Your task to perform on an android device: Open settings on Google Maps Image 0: 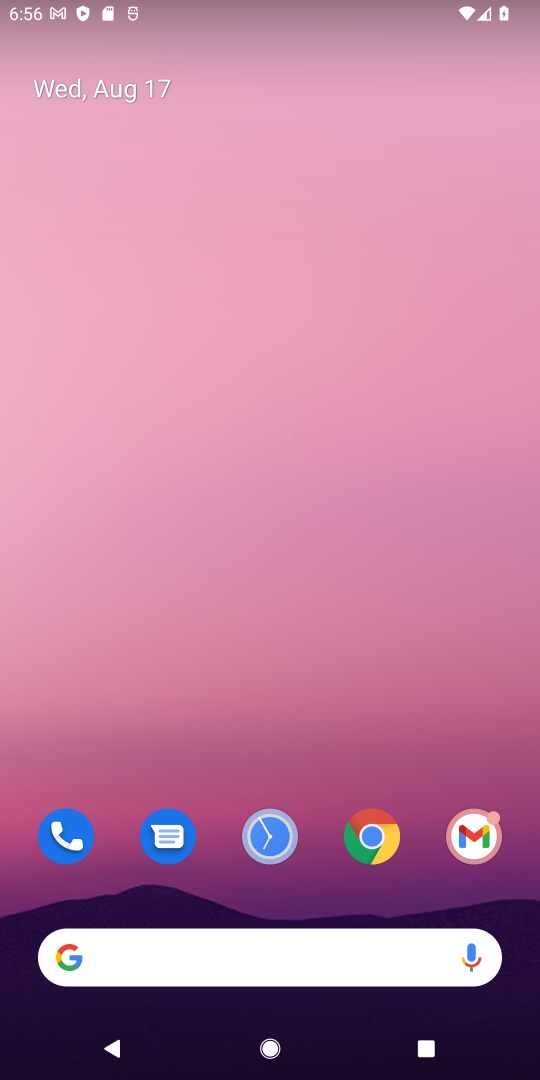
Step 0: drag from (351, 860) to (347, 124)
Your task to perform on an android device: Open settings on Google Maps Image 1: 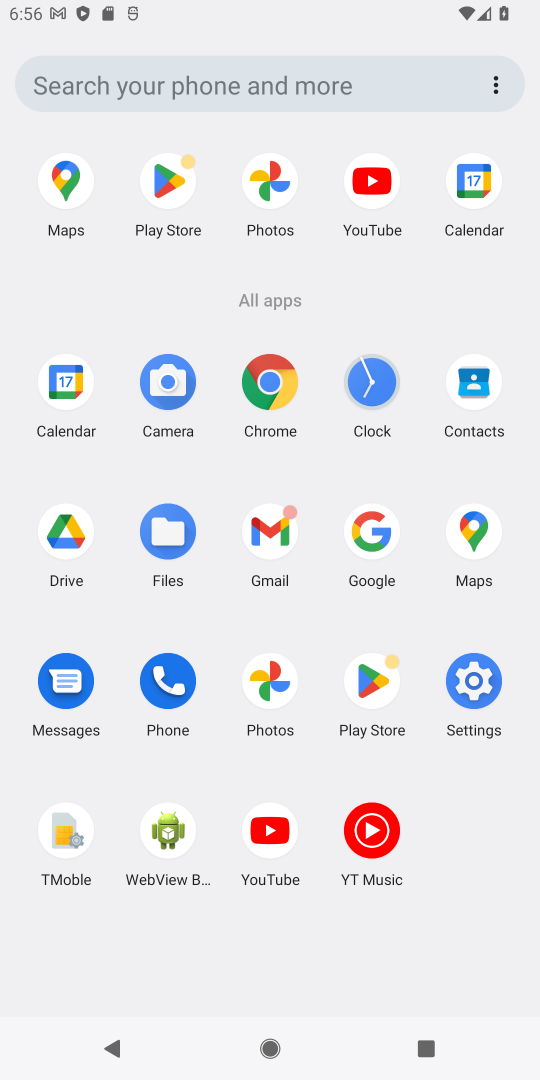
Step 1: click (472, 536)
Your task to perform on an android device: Open settings on Google Maps Image 2: 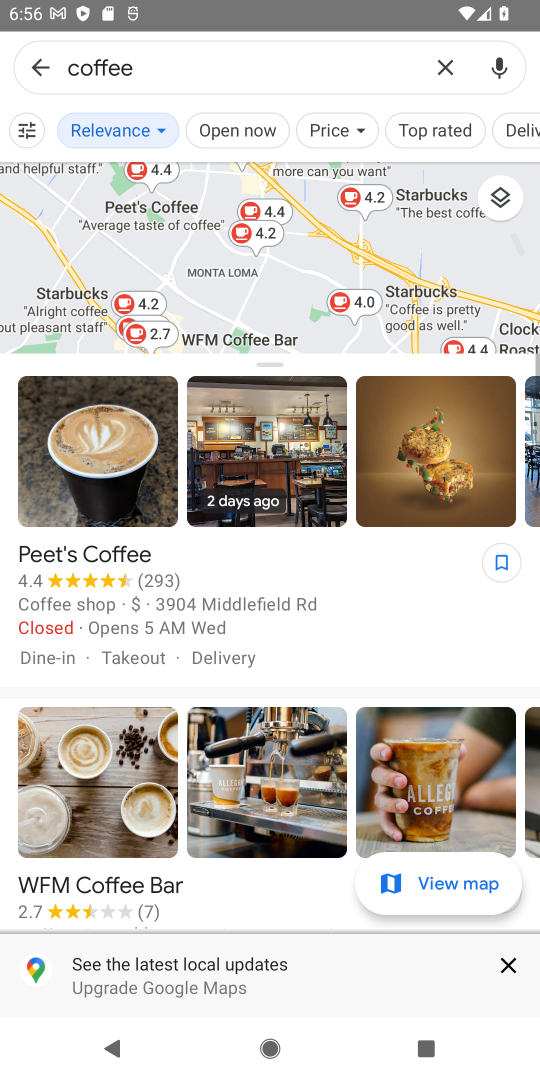
Step 2: click (443, 58)
Your task to perform on an android device: Open settings on Google Maps Image 3: 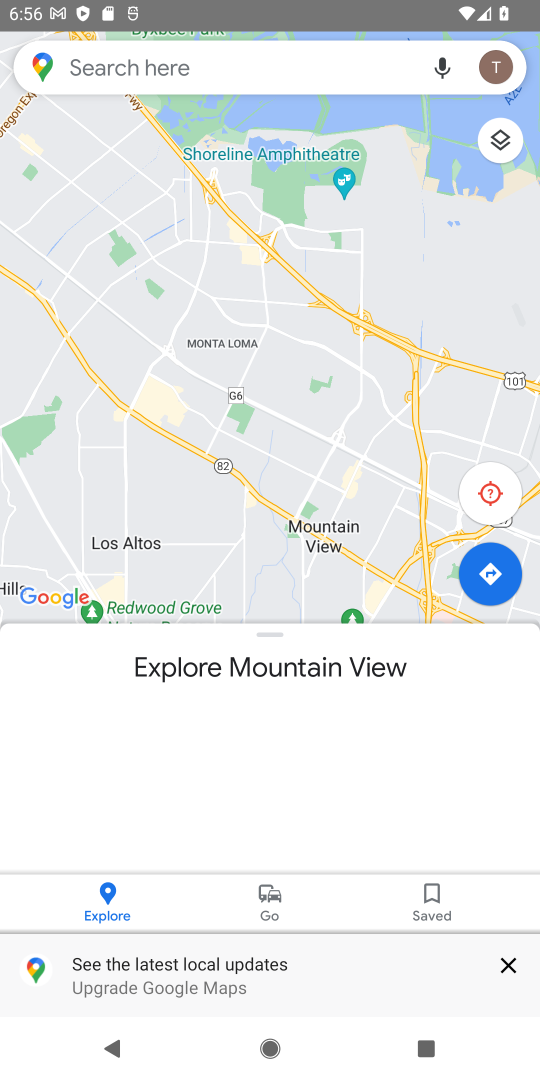
Step 3: click (485, 67)
Your task to perform on an android device: Open settings on Google Maps Image 4: 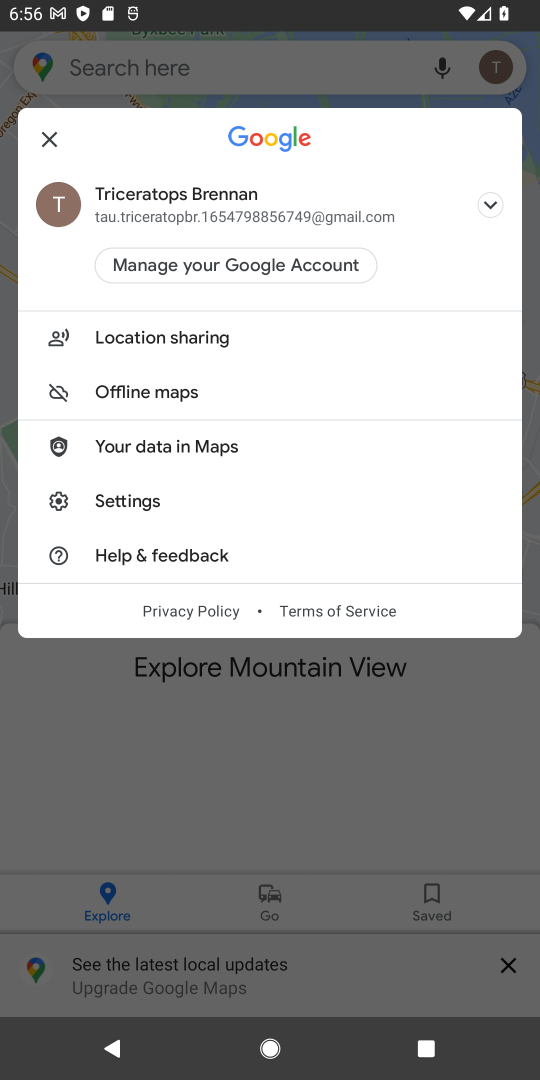
Step 4: click (166, 499)
Your task to perform on an android device: Open settings on Google Maps Image 5: 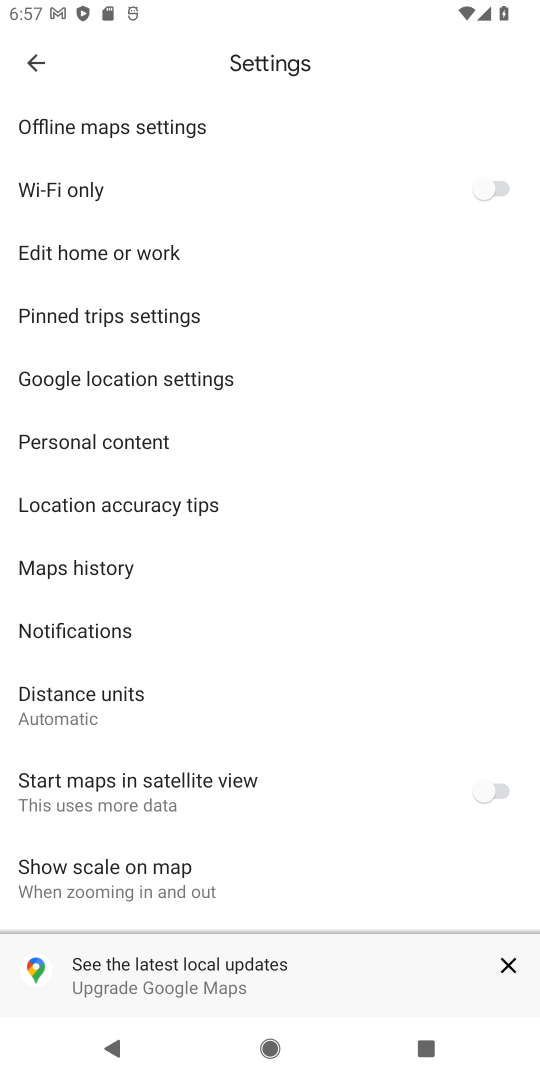
Step 5: task complete